Your task to perform on an android device: move a message to another label in the gmail app Image 0: 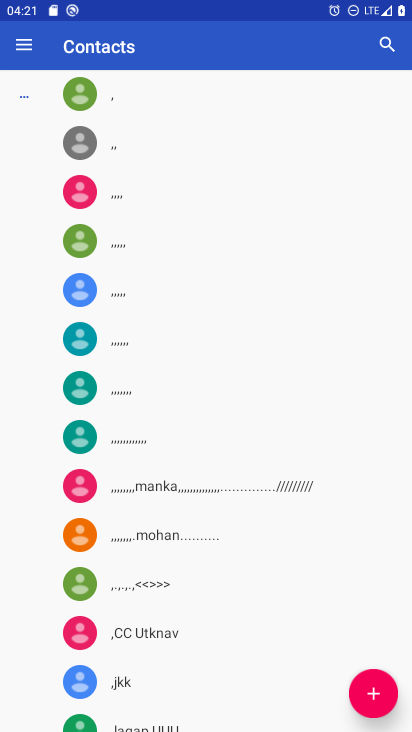
Step 0: press back button
Your task to perform on an android device: move a message to another label in the gmail app Image 1: 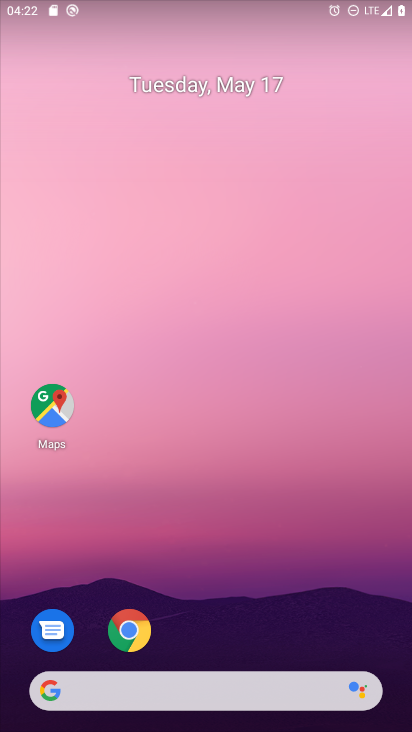
Step 1: drag from (219, 588) to (319, 48)
Your task to perform on an android device: move a message to another label in the gmail app Image 2: 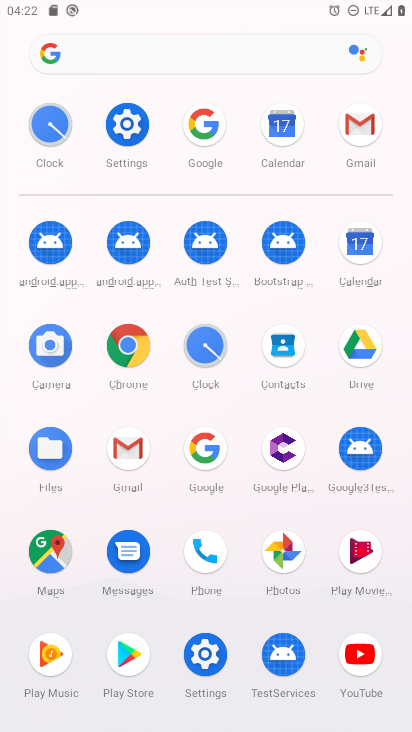
Step 2: click (358, 129)
Your task to perform on an android device: move a message to another label in the gmail app Image 3: 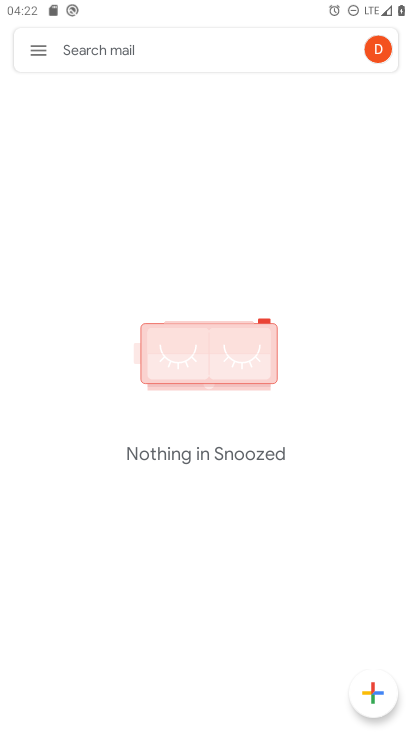
Step 3: click (46, 55)
Your task to perform on an android device: move a message to another label in the gmail app Image 4: 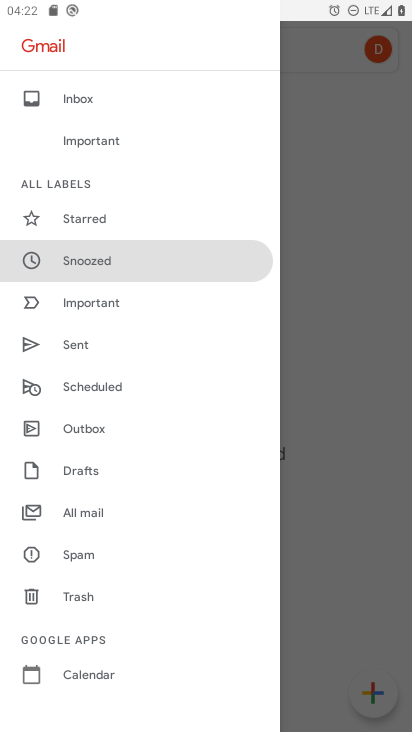
Step 4: click (90, 508)
Your task to perform on an android device: move a message to another label in the gmail app Image 5: 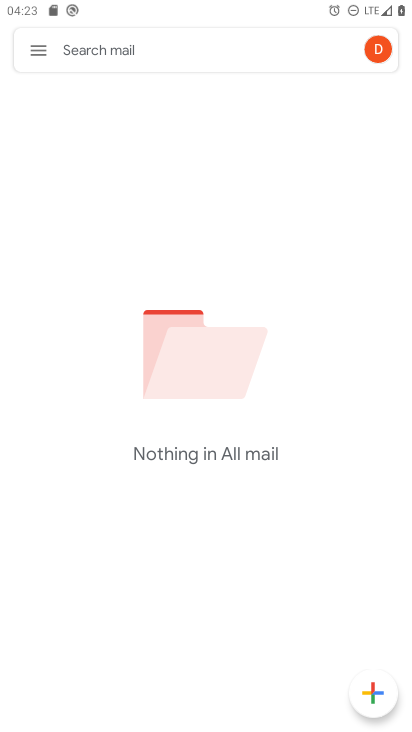
Step 5: task complete